Your task to perform on an android device: turn pop-ups off in chrome Image 0: 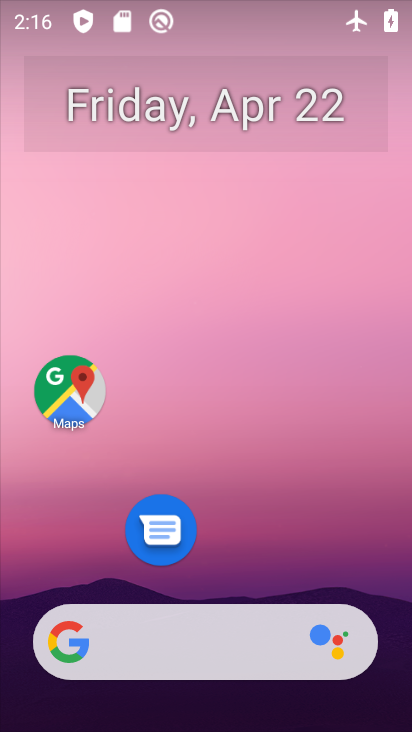
Step 0: drag from (253, 556) to (269, 8)
Your task to perform on an android device: turn pop-ups off in chrome Image 1: 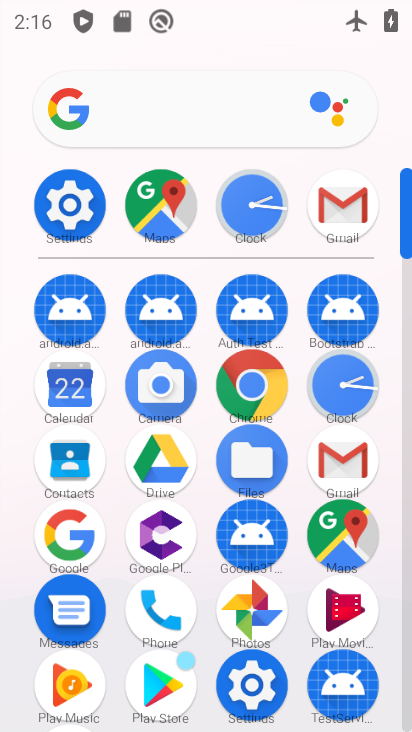
Step 1: click (250, 379)
Your task to perform on an android device: turn pop-ups off in chrome Image 2: 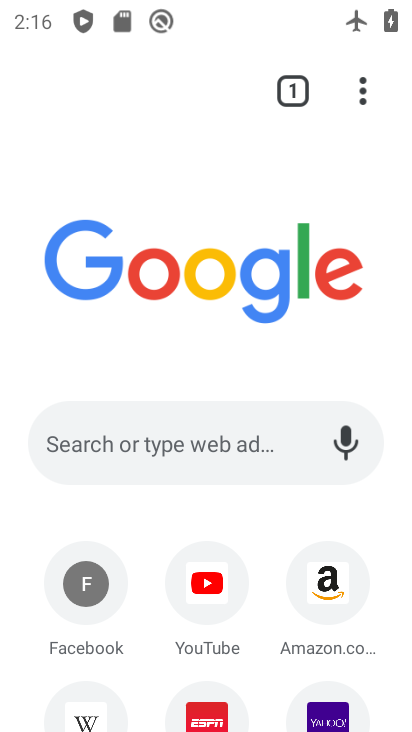
Step 2: click (362, 95)
Your task to perform on an android device: turn pop-ups off in chrome Image 3: 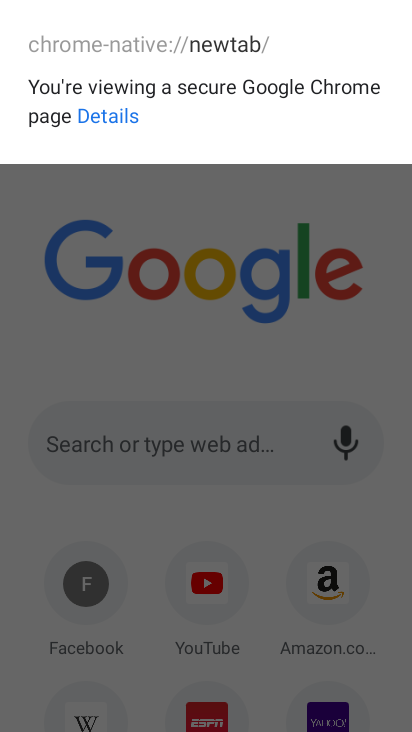
Step 3: click (320, 194)
Your task to perform on an android device: turn pop-ups off in chrome Image 4: 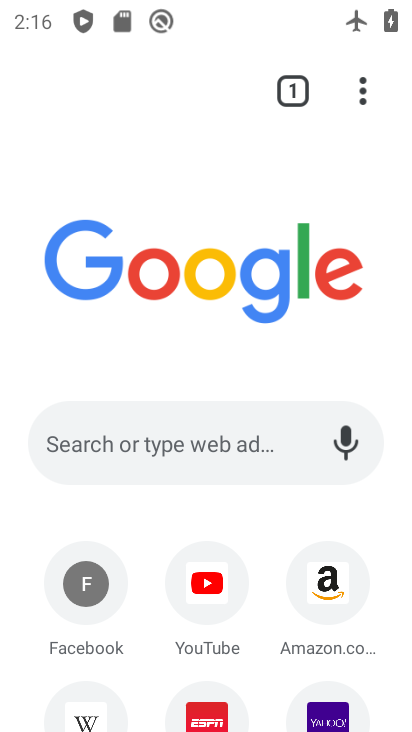
Step 4: click (360, 91)
Your task to perform on an android device: turn pop-ups off in chrome Image 5: 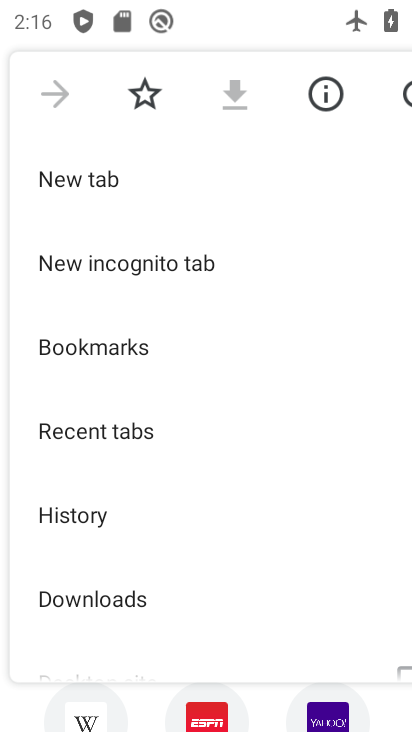
Step 5: drag from (189, 326) to (135, 94)
Your task to perform on an android device: turn pop-ups off in chrome Image 6: 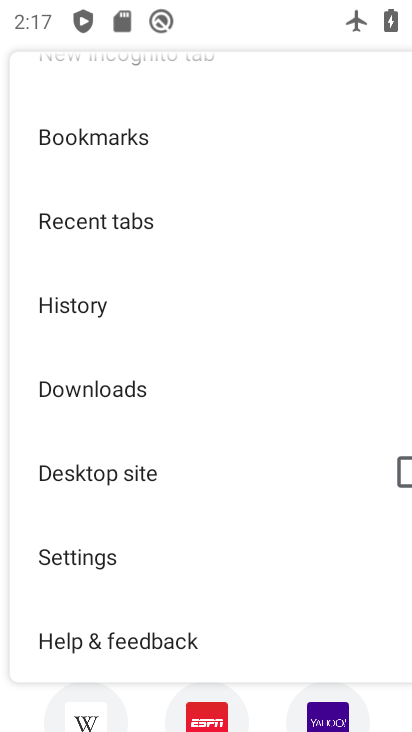
Step 6: click (74, 556)
Your task to perform on an android device: turn pop-ups off in chrome Image 7: 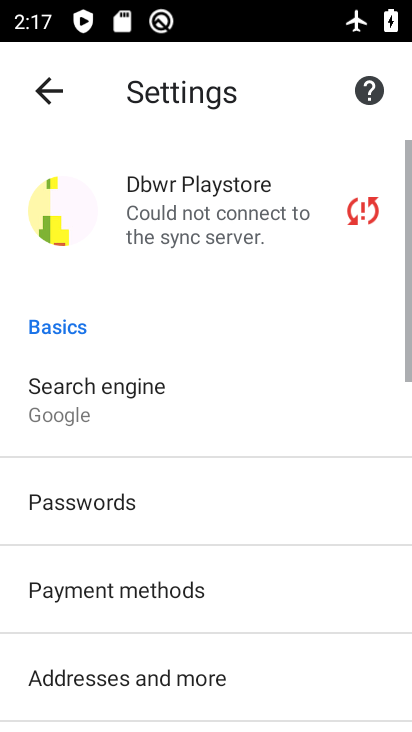
Step 7: drag from (199, 538) to (144, 197)
Your task to perform on an android device: turn pop-ups off in chrome Image 8: 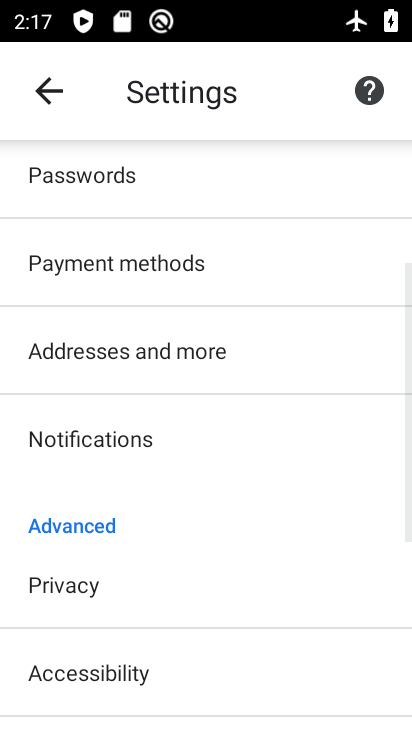
Step 8: drag from (199, 592) to (188, 277)
Your task to perform on an android device: turn pop-ups off in chrome Image 9: 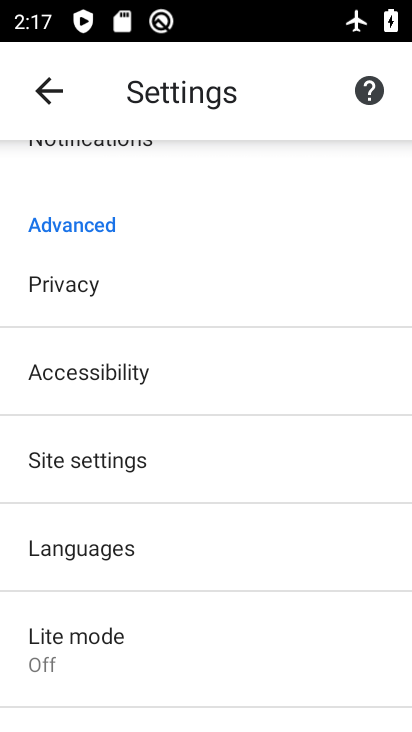
Step 9: click (82, 462)
Your task to perform on an android device: turn pop-ups off in chrome Image 10: 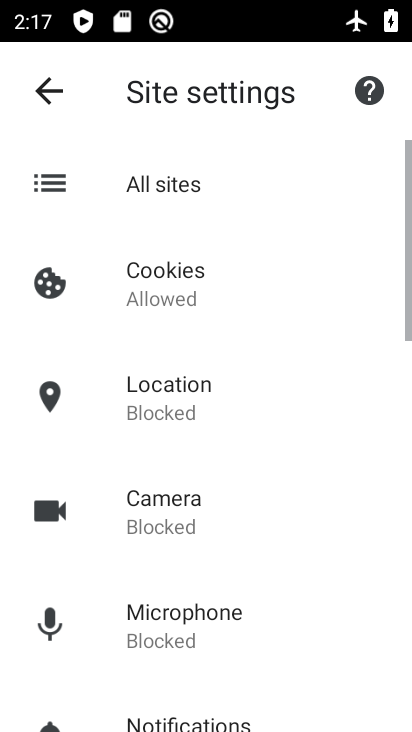
Step 10: drag from (200, 570) to (202, 207)
Your task to perform on an android device: turn pop-ups off in chrome Image 11: 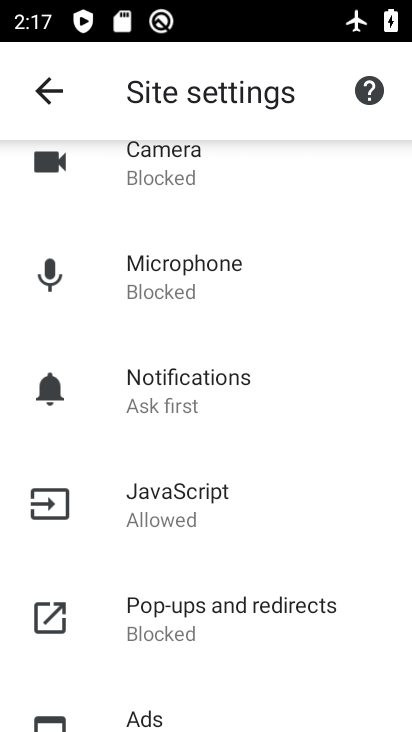
Step 11: click (218, 602)
Your task to perform on an android device: turn pop-ups off in chrome Image 12: 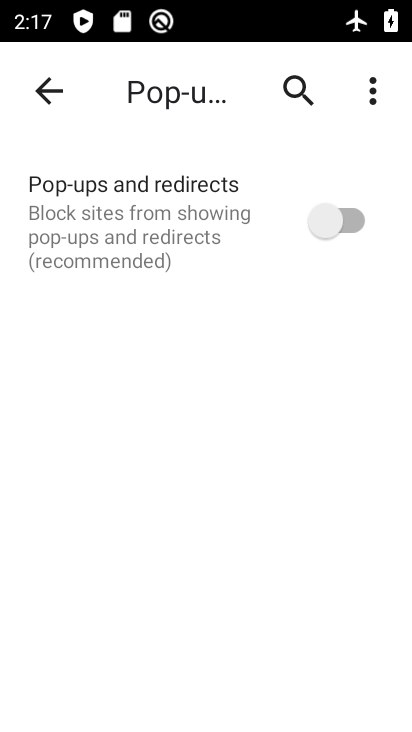
Step 12: task complete